Your task to perform on an android device: toggle notifications settings in the gmail app Image 0: 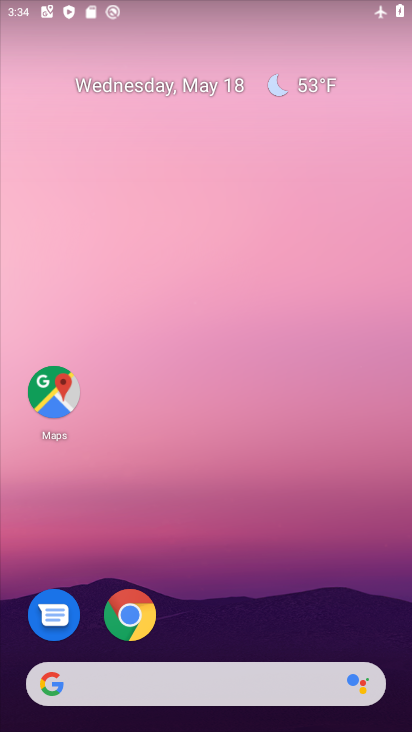
Step 0: drag from (285, 593) to (291, 71)
Your task to perform on an android device: toggle notifications settings in the gmail app Image 1: 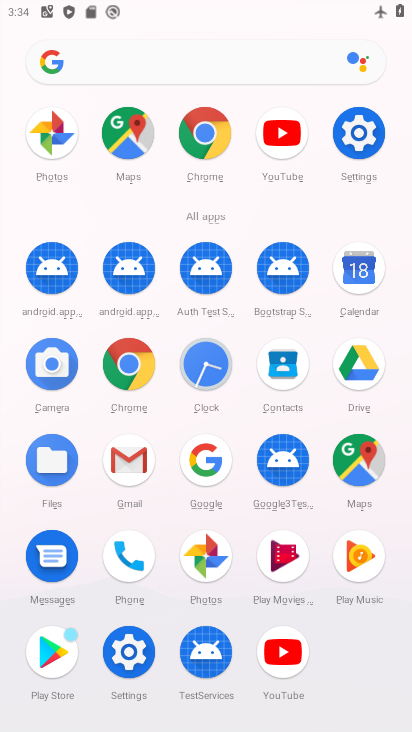
Step 1: click (138, 448)
Your task to perform on an android device: toggle notifications settings in the gmail app Image 2: 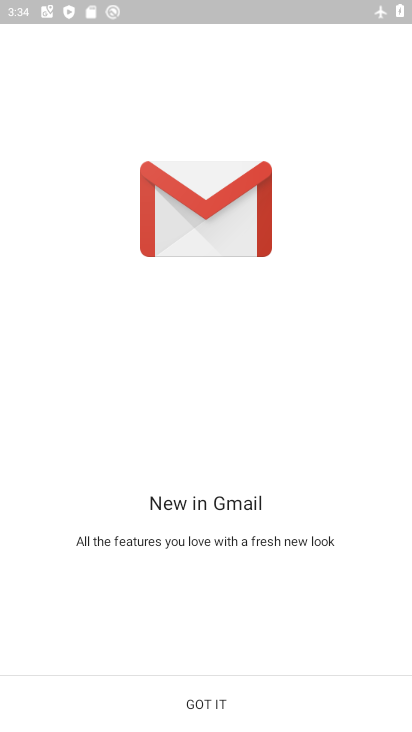
Step 2: click (236, 715)
Your task to perform on an android device: toggle notifications settings in the gmail app Image 3: 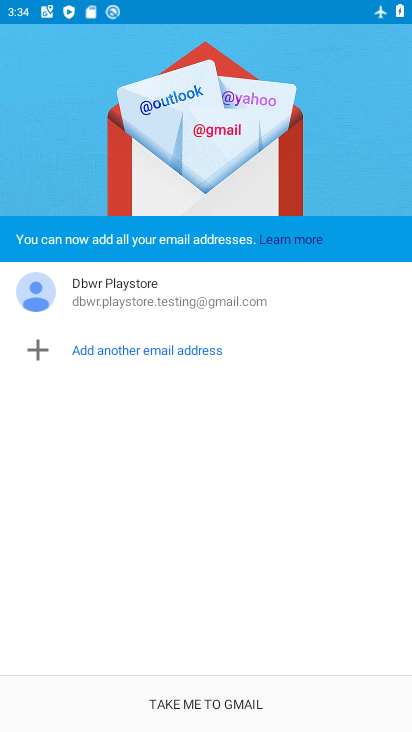
Step 3: click (246, 695)
Your task to perform on an android device: toggle notifications settings in the gmail app Image 4: 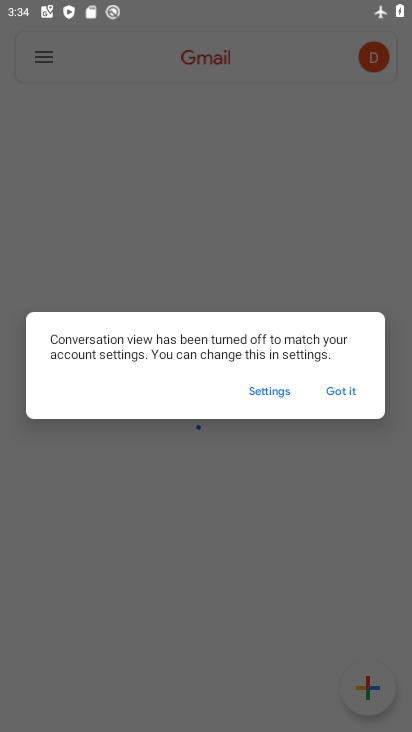
Step 4: click (334, 391)
Your task to perform on an android device: toggle notifications settings in the gmail app Image 5: 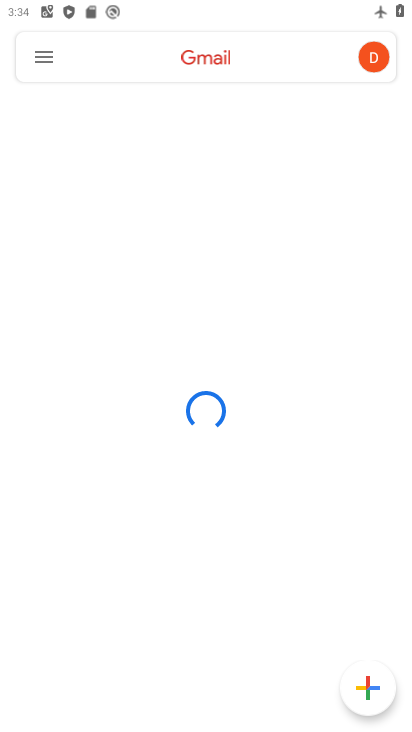
Step 5: click (41, 61)
Your task to perform on an android device: toggle notifications settings in the gmail app Image 6: 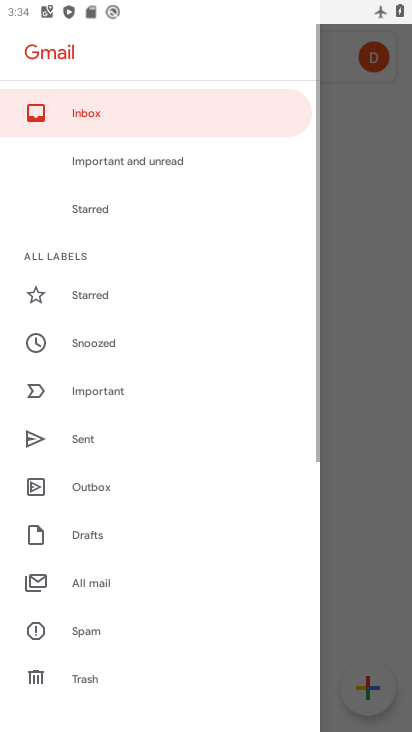
Step 6: drag from (119, 666) to (260, 144)
Your task to perform on an android device: toggle notifications settings in the gmail app Image 7: 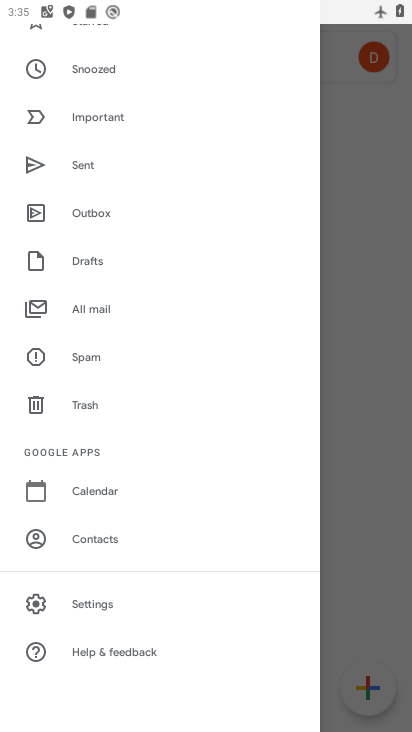
Step 7: click (117, 597)
Your task to perform on an android device: toggle notifications settings in the gmail app Image 8: 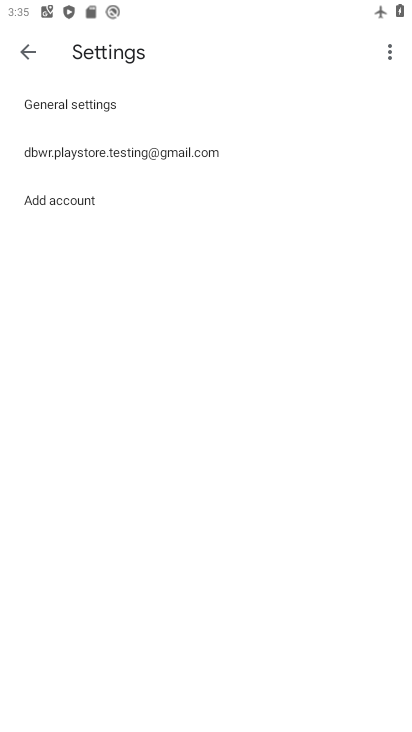
Step 8: click (137, 153)
Your task to perform on an android device: toggle notifications settings in the gmail app Image 9: 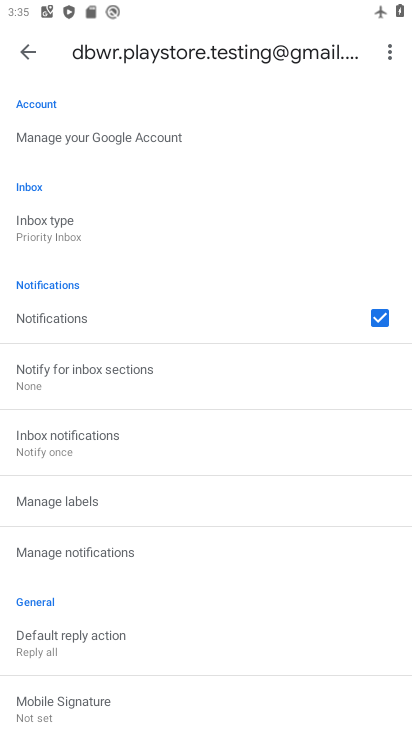
Step 9: click (99, 563)
Your task to perform on an android device: toggle notifications settings in the gmail app Image 10: 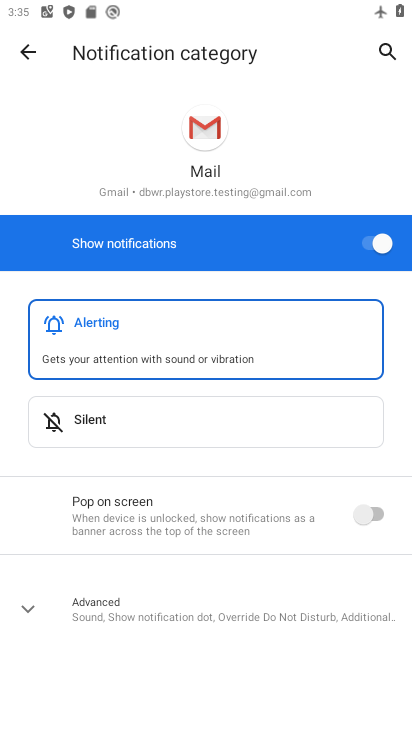
Step 10: click (360, 240)
Your task to perform on an android device: toggle notifications settings in the gmail app Image 11: 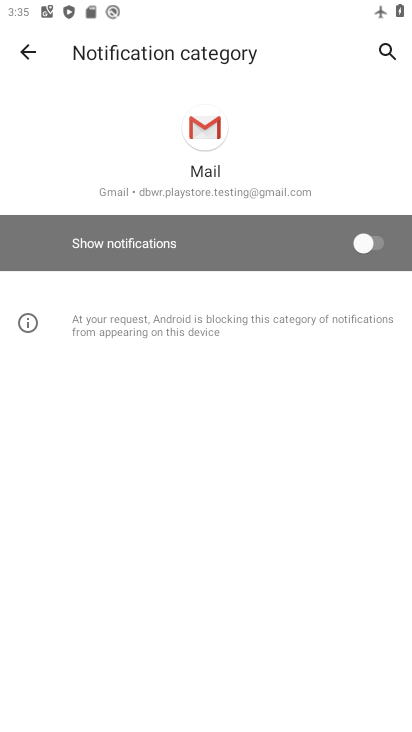
Step 11: task complete